Your task to perform on an android device: install app "Google Calendar" Image 0: 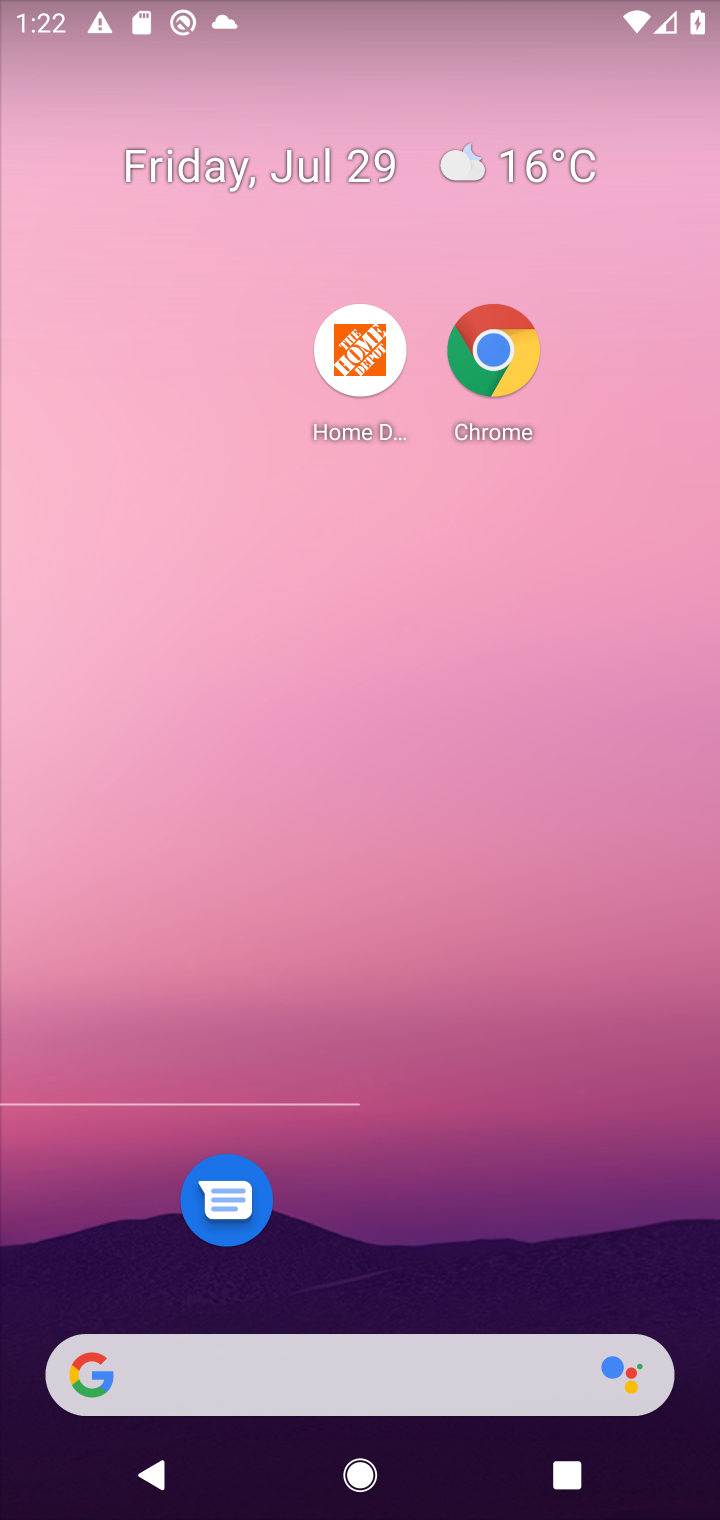
Step 0: press home button
Your task to perform on an android device: install app "Google Calendar" Image 1: 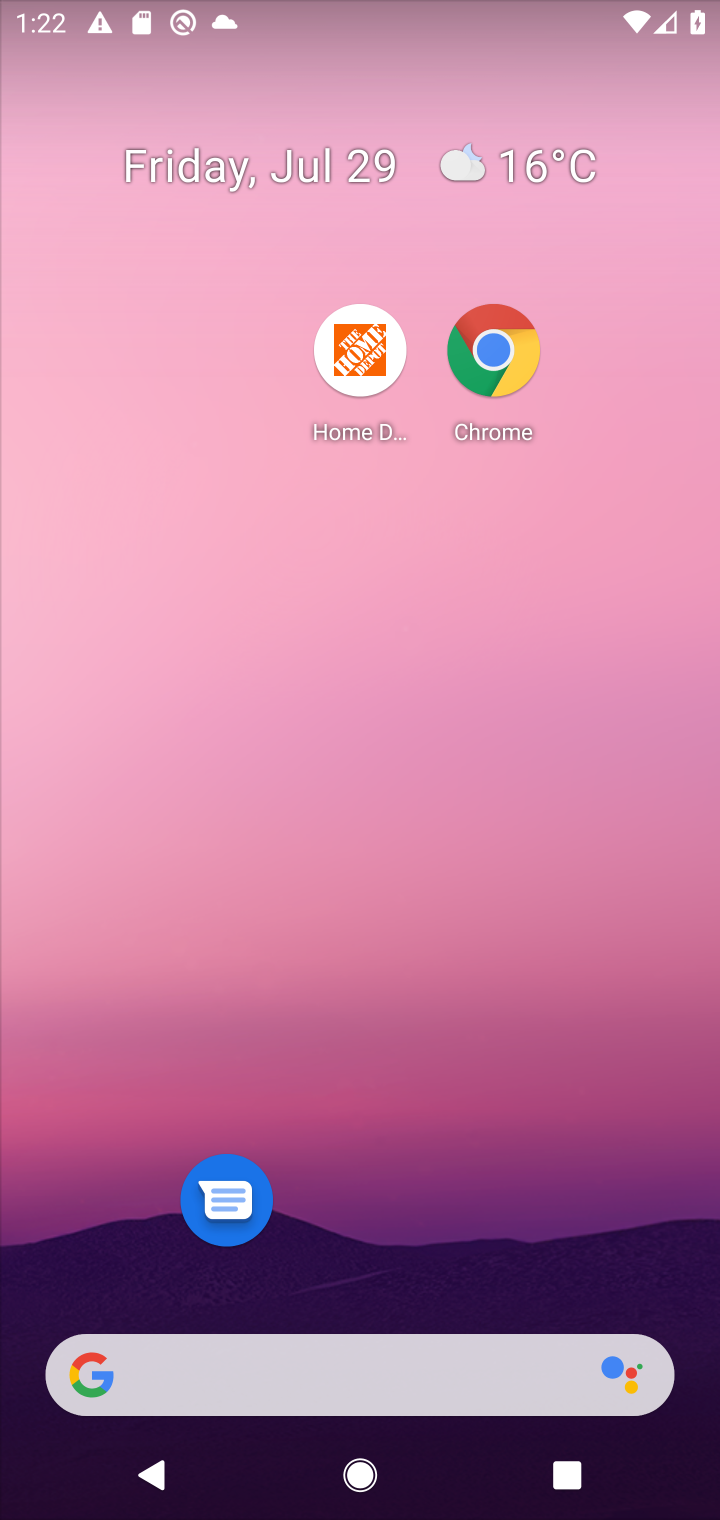
Step 1: press home button
Your task to perform on an android device: install app "Google Calendar" Image 2: 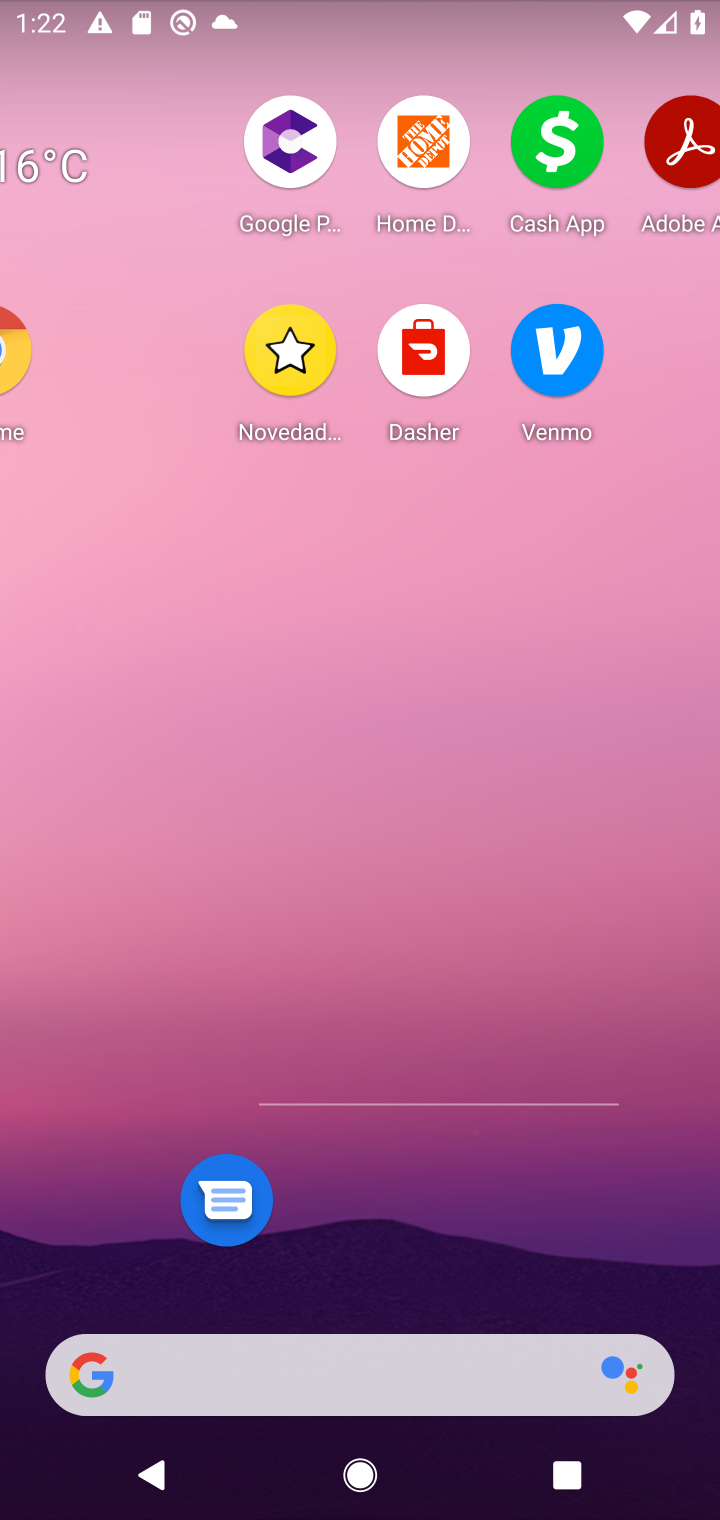
Step 2: drag from (372, 270) to (353, 7)
Your task to perform on an android device: install app "Google Calendar" Image 3: 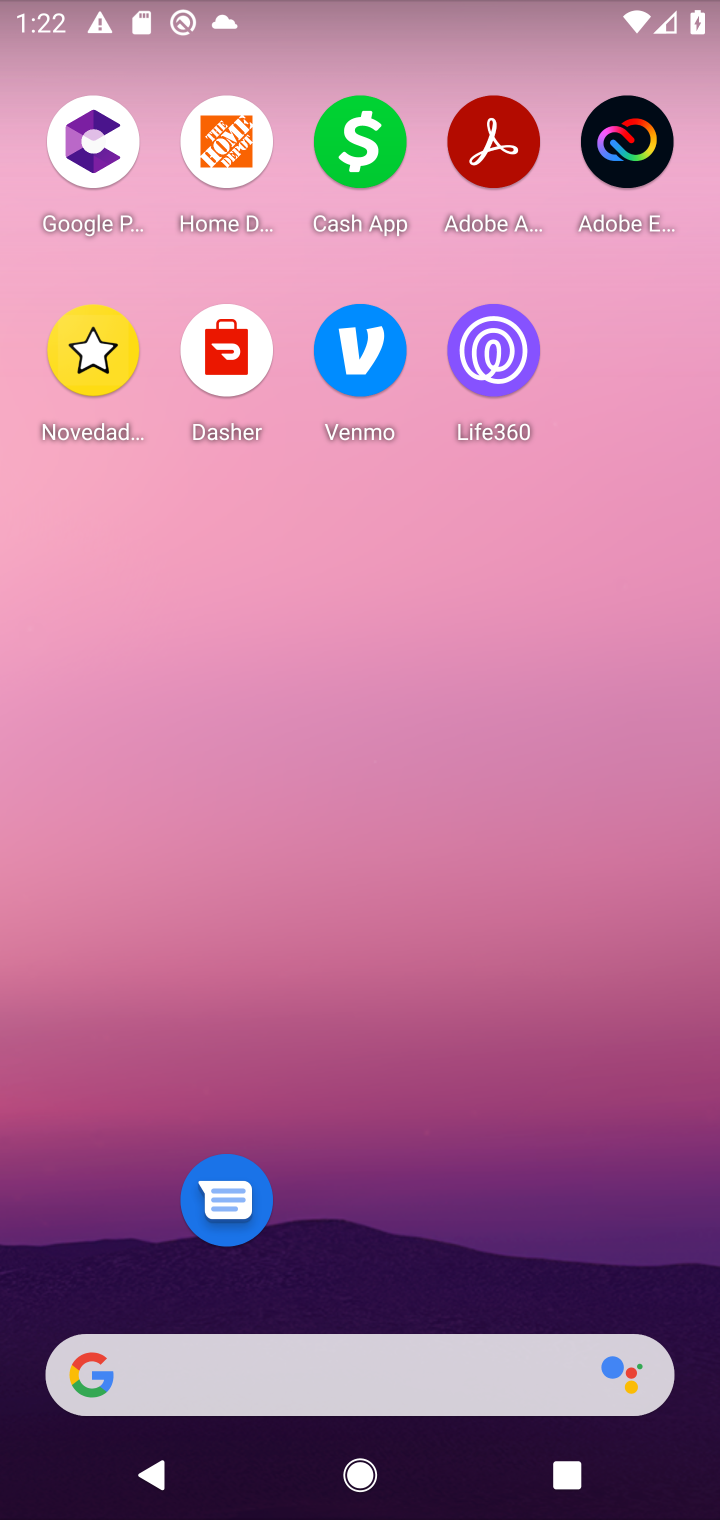
Step 3: drag from (439, 1227) to (306, 12)
Your task to perform on an android device: install app "Google Calendar" Image 4: 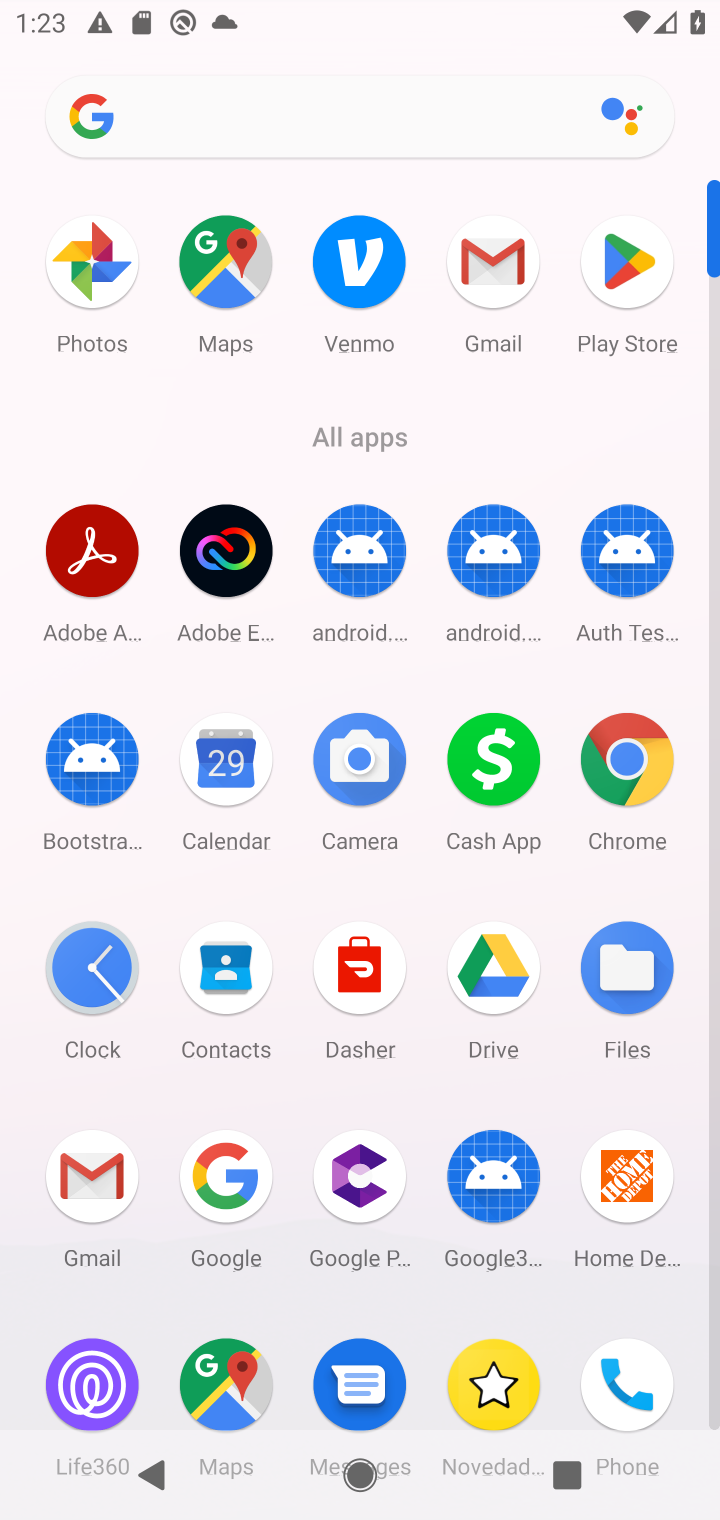
Step 4: click (629, 282)
Your task to perform on an android device: install app "Google Calendar" Image 5: 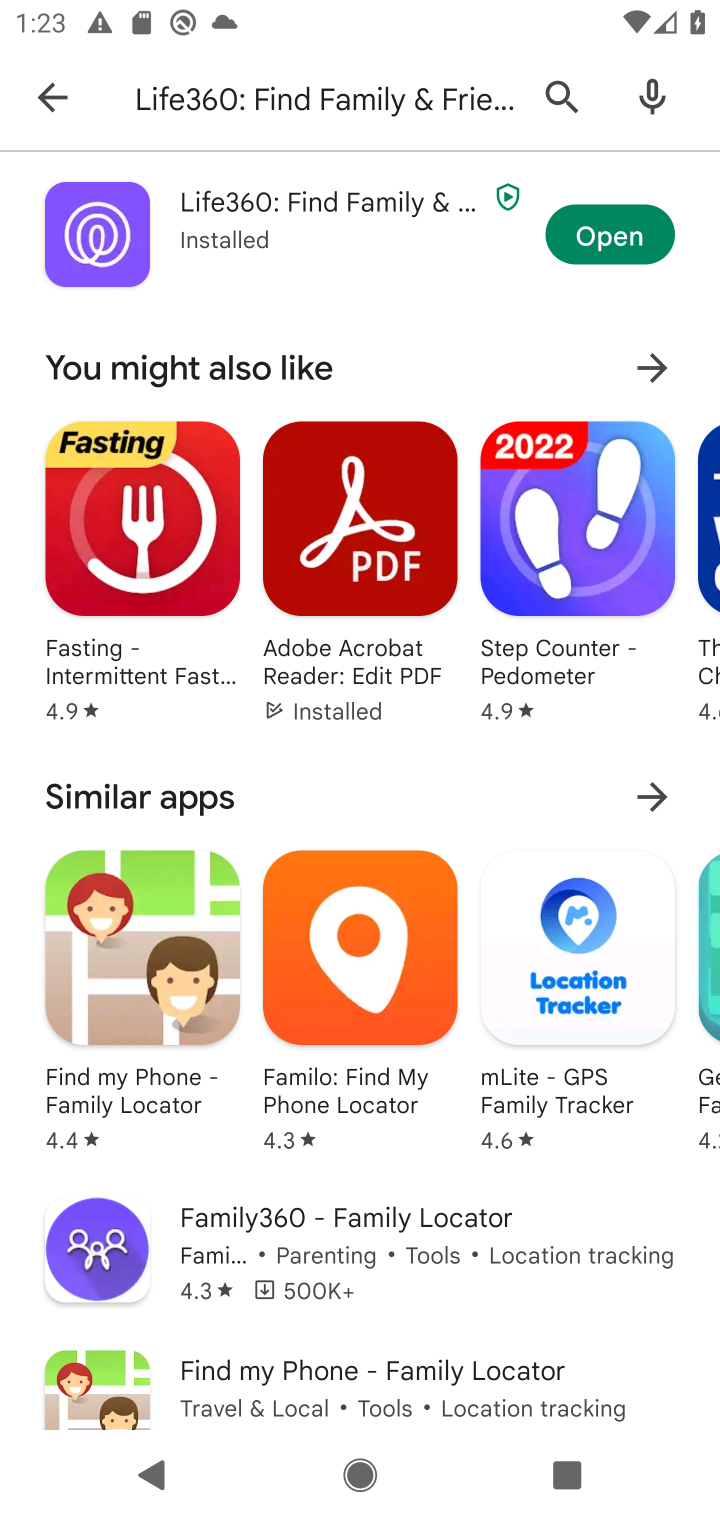
Step 5: click (259, 81)
Your task to perform on an android device: install app "Google Calendar" Image 6: 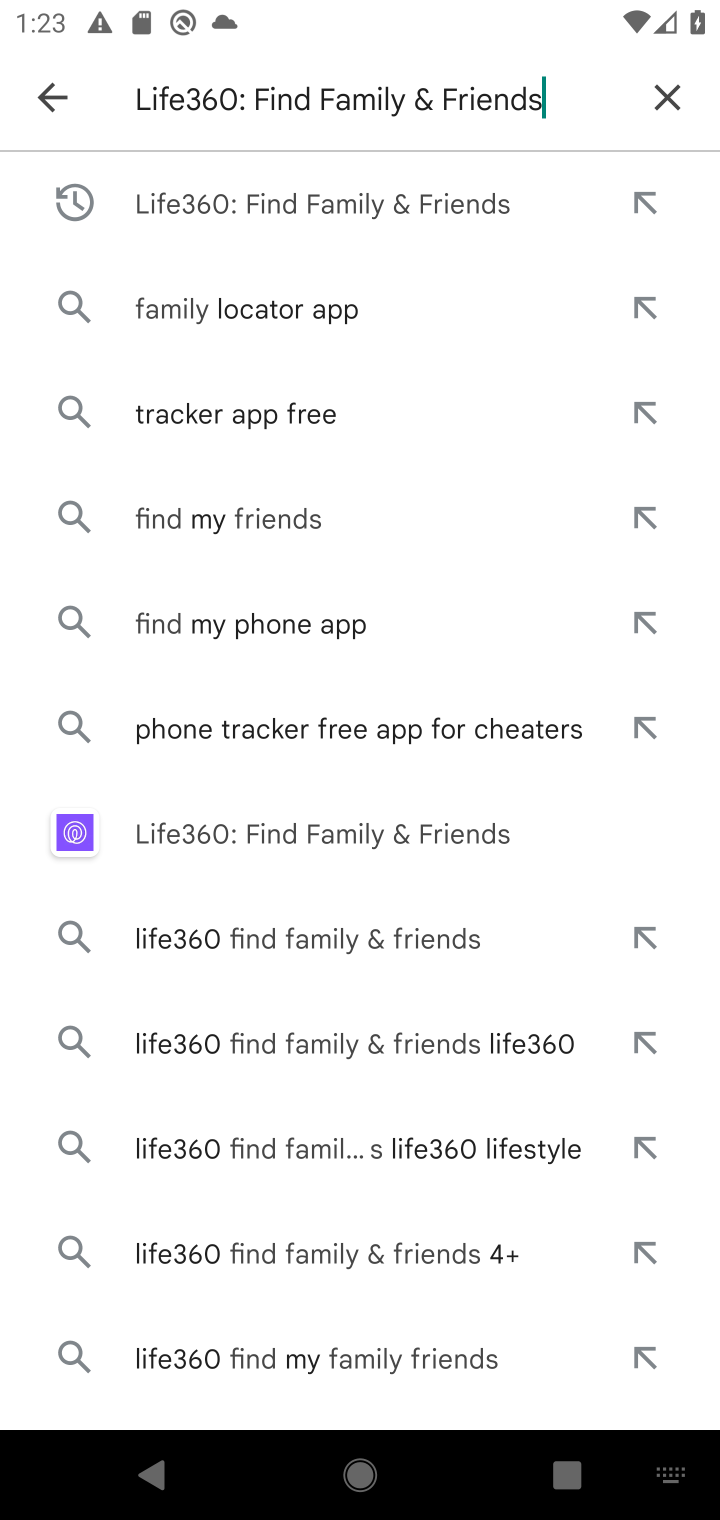
Step 6: click (678, 80)
Your task to perform on an android device: install app "Google Calendar" Image 7: 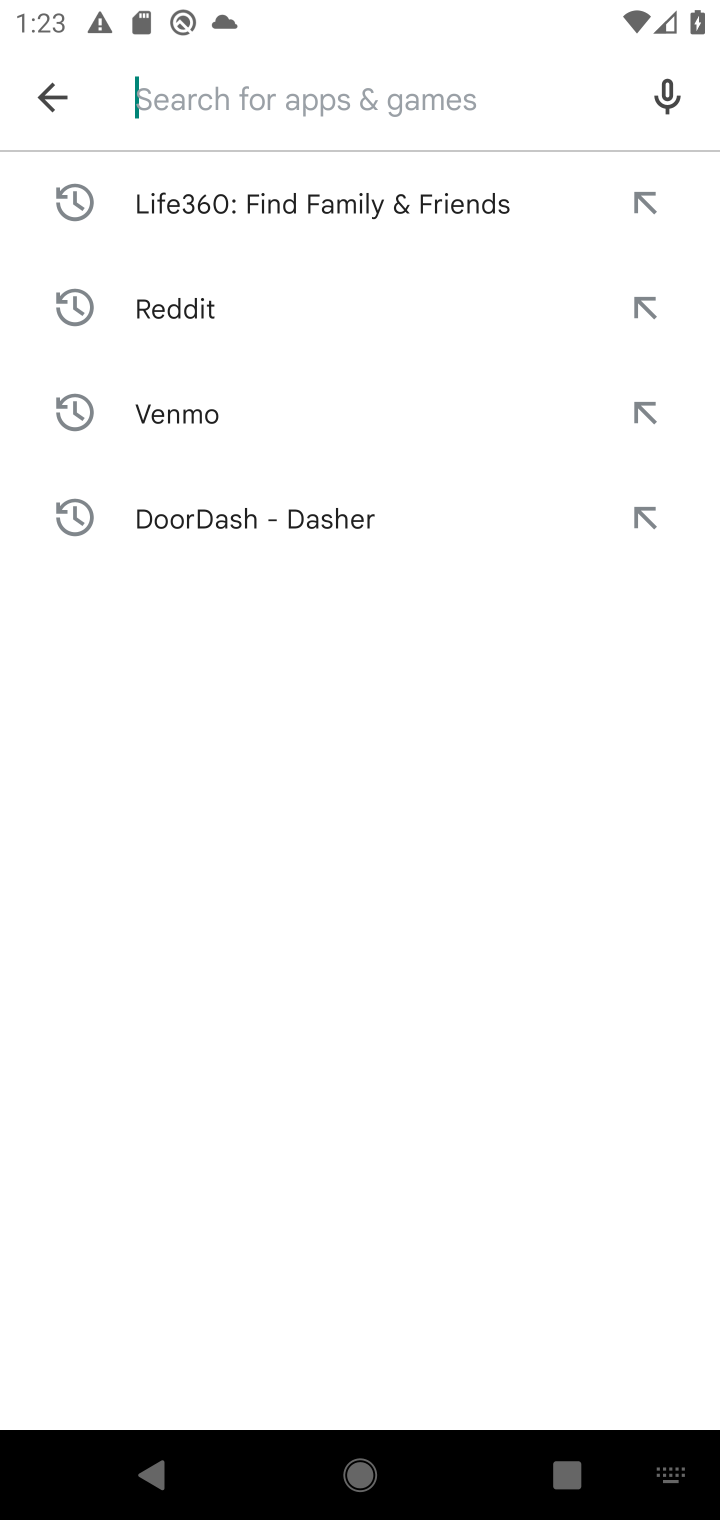
Step 7: type "GooGle Calendar"
Your task to perform on an android device: install app "Google Calendar" Image 8: 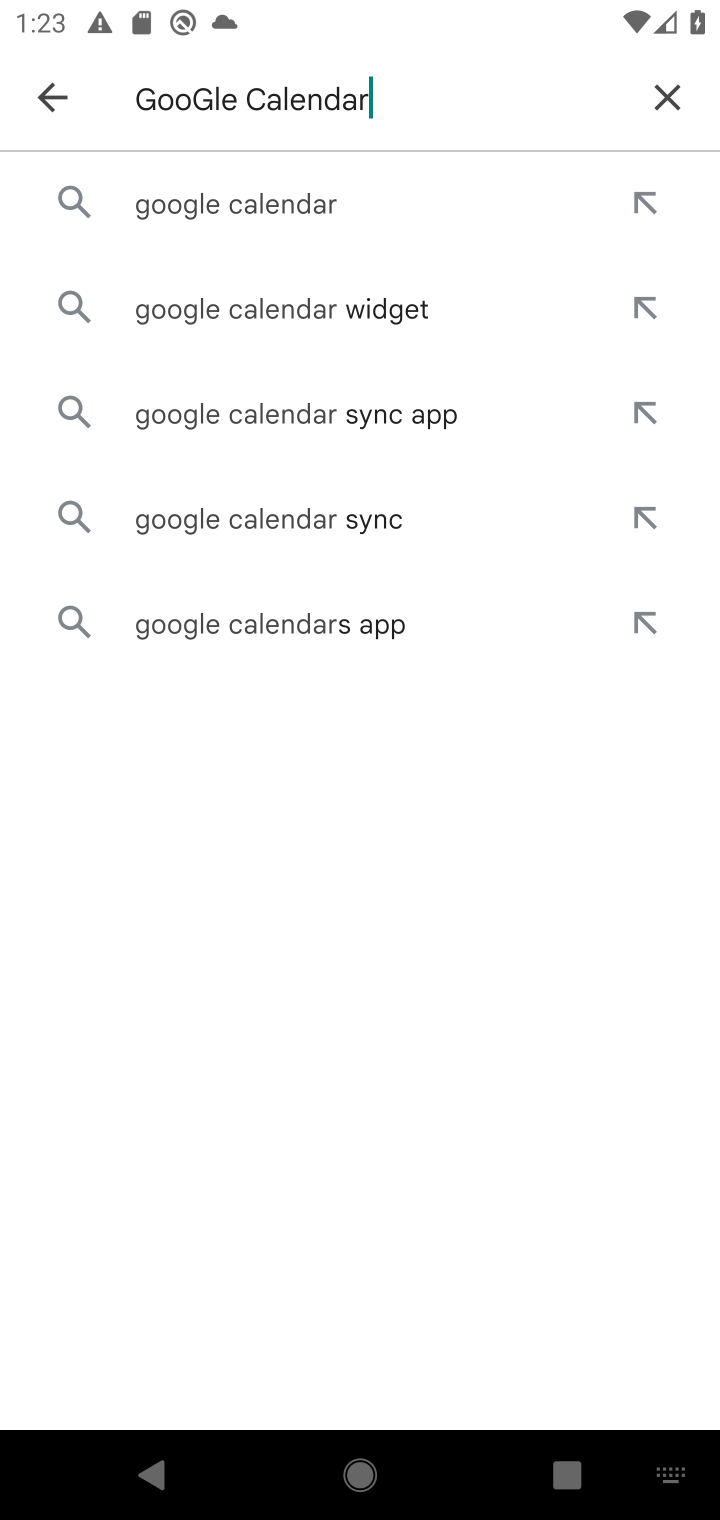
Step 8: press enter
Your task to perform on an android device: install app "Google Calendar" Image 9: 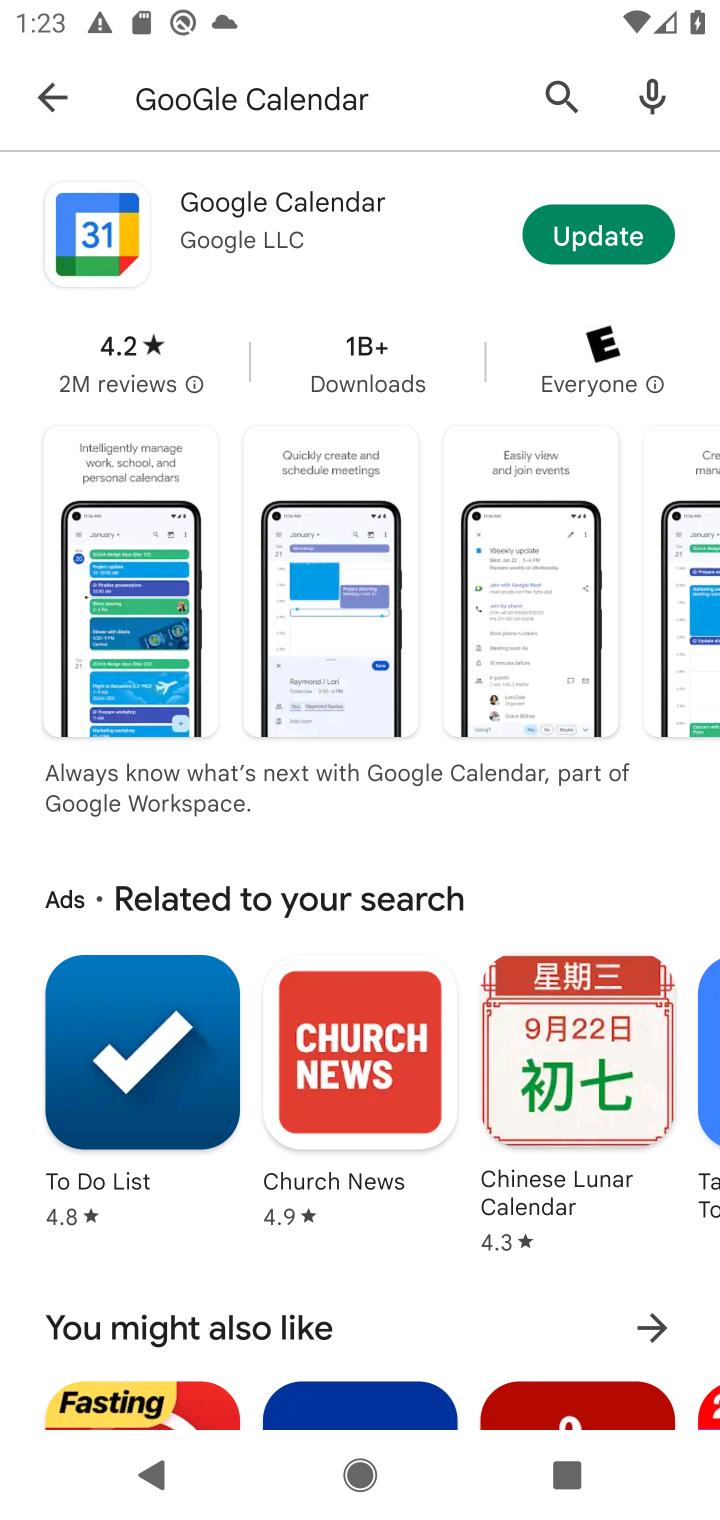
Step 9: click (299, 206)
Your task to perform on an android device: install app "Google Calendar" Image 10: 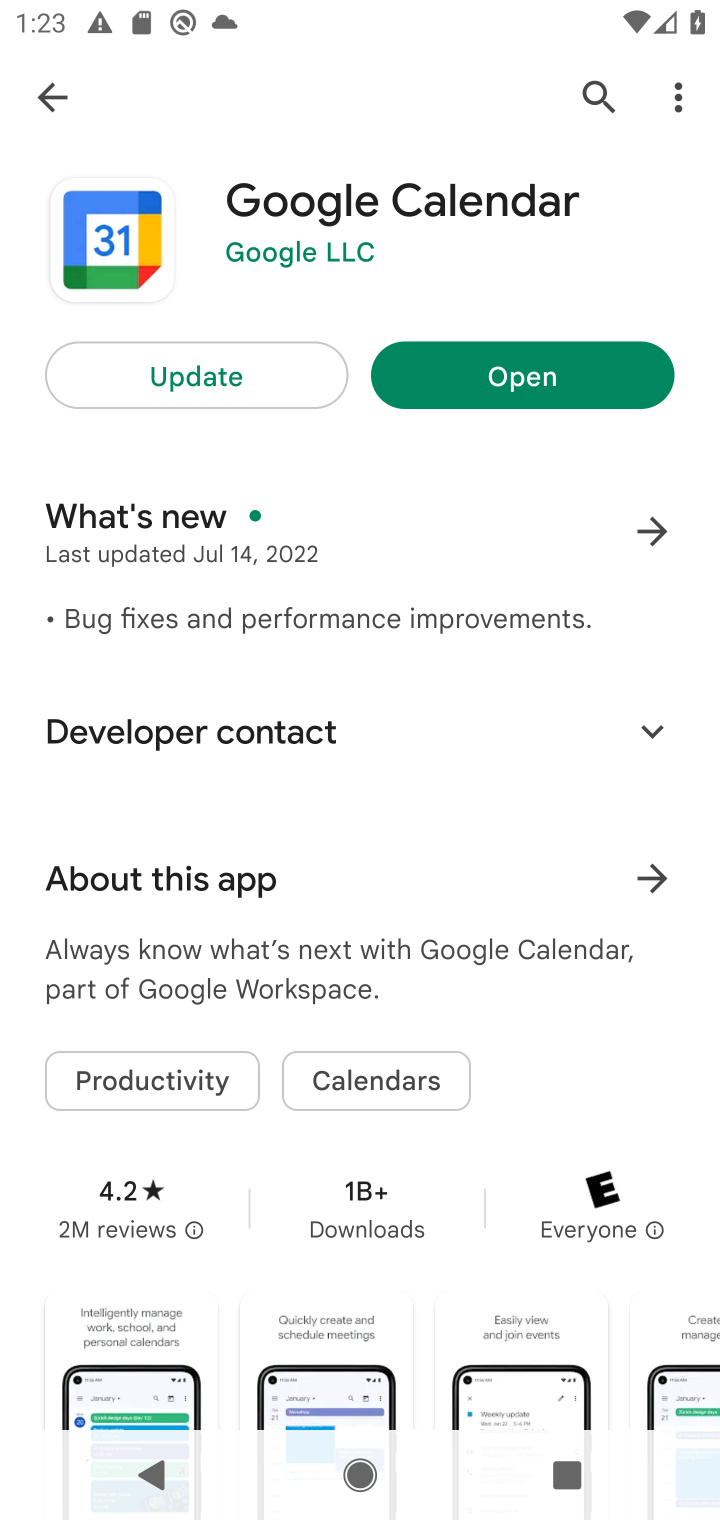
Step 10: task complete